Your task to perform on an android device: Open Google Maps and go to "Timeline" Image 0: 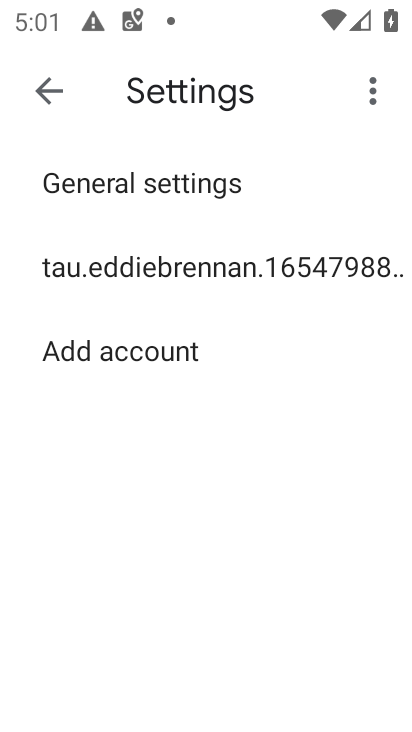
Step 0: press home button
Your task to perform on an android device: Open Google Maps and go to "Timeline" Image 1: 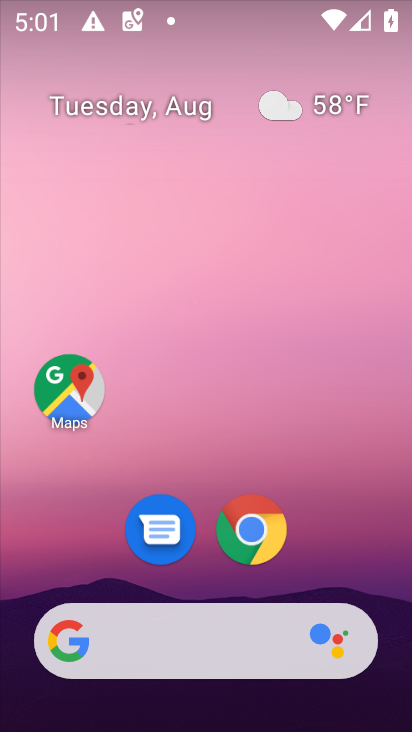
Step 1: click (81, 398)
Your task to perform on an android device: Open Google Maps and go to "Timeline" Image 2: 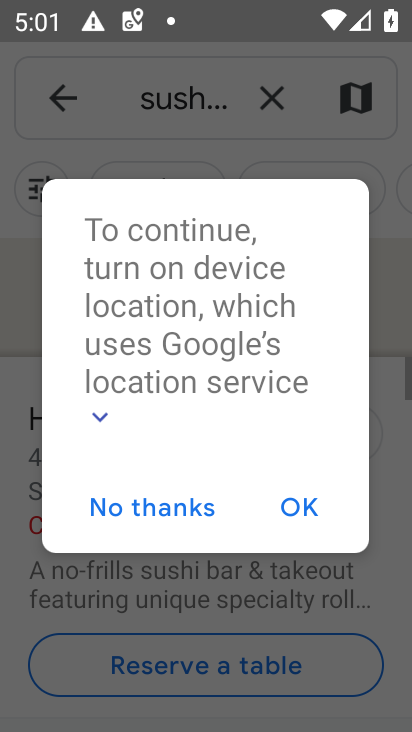
Step 2: click (54, 111)
Your task to perform on an android device: Open Google Maps and go to "Timeline" Image 3: 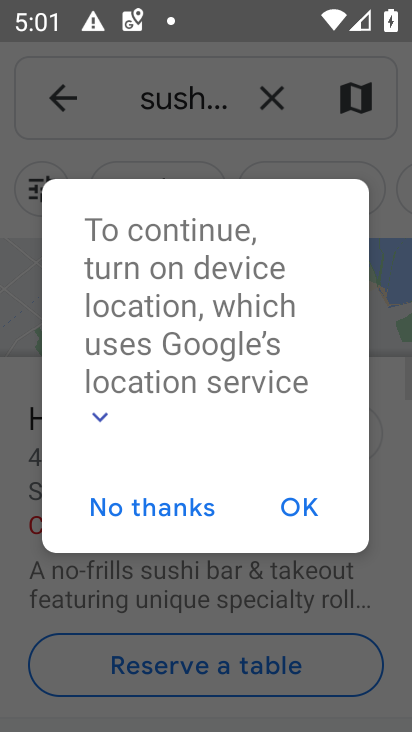
Step 3: click (142, 510)
Your task to perform on an android device: Open Google Maps and go to "Timeline" Image 4: 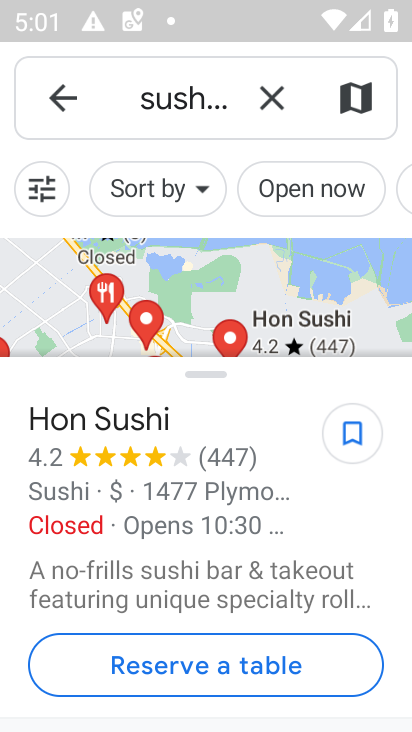
Step 4: click (68, 95)
Your task to perform on an android device: Open Google Maps and go to "Timeline" Image 5: 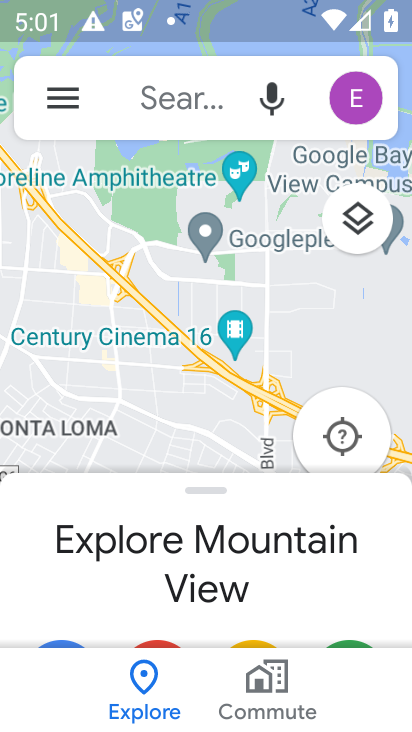
Step 5: click (75, 95)
Your task to perform on an android device: Open Google Maps and go to "Timeline" Image 6: 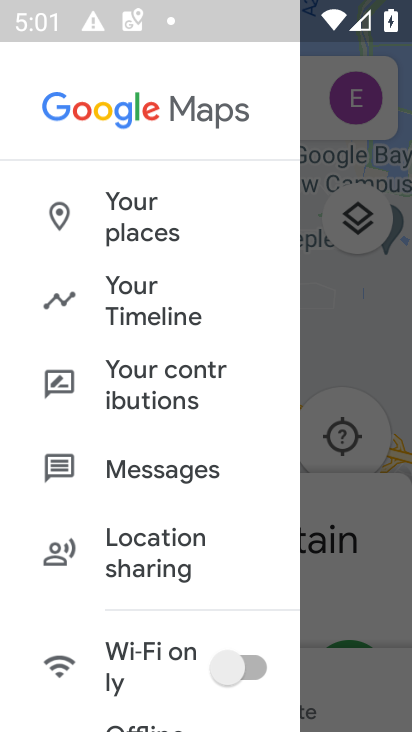
Step 6: click (123, 299)
Your task to perform on an android device: Open Google Maps and go to "Timeline" Image 7: 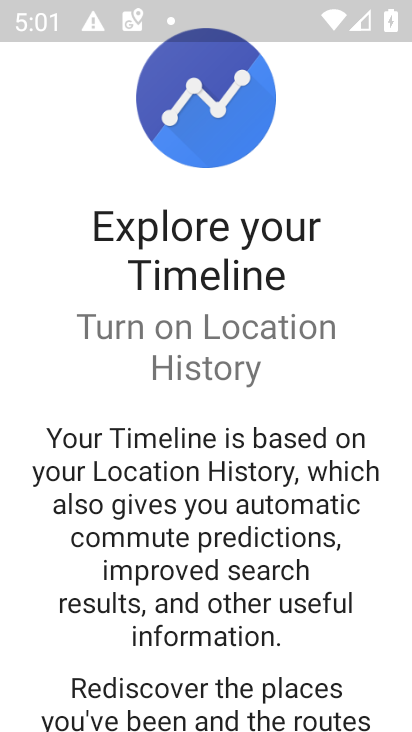
Step 7: drag from (308, 673) to (284, 227)
Your task to perform on an android device: Open Google Maps and go to "Timeline" Image 8: 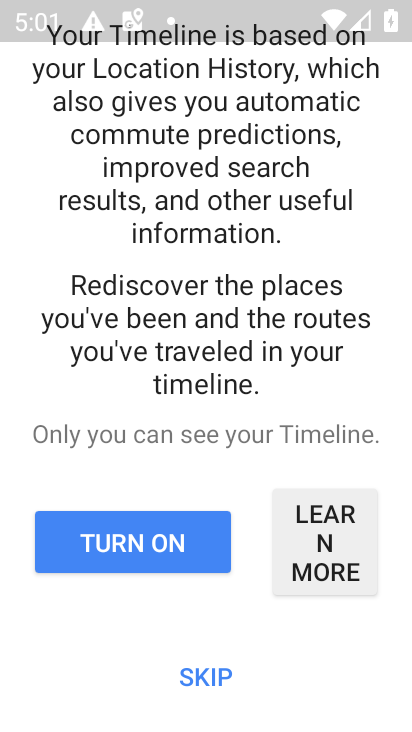
Step 8: click (193, 562)
Your task to perform on an android device: Open Google Maps and go to "Timeline" Image 9: 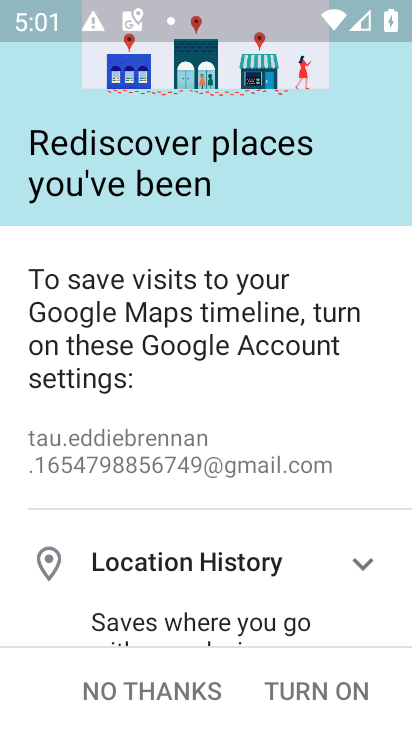
Step 9: click (283, 694)
Your task to perform on an android device: Open Google Maps and go to "Timeline" Image 10: 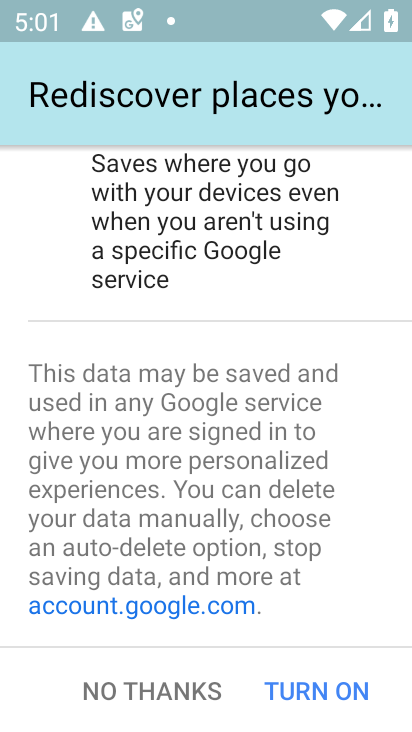
Step 10: click (283, 694)
Your task to perform on an android device: Open Google Maps and go to "Timeline" Image 11: 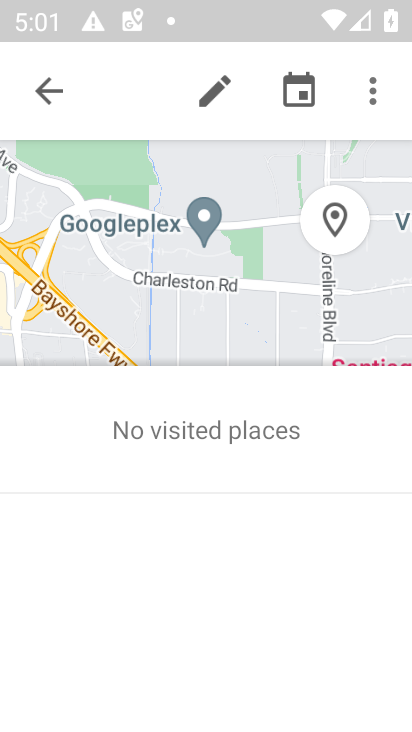
Step 11: task complete